Your task to perform on an android device: See recent photos Image 0: 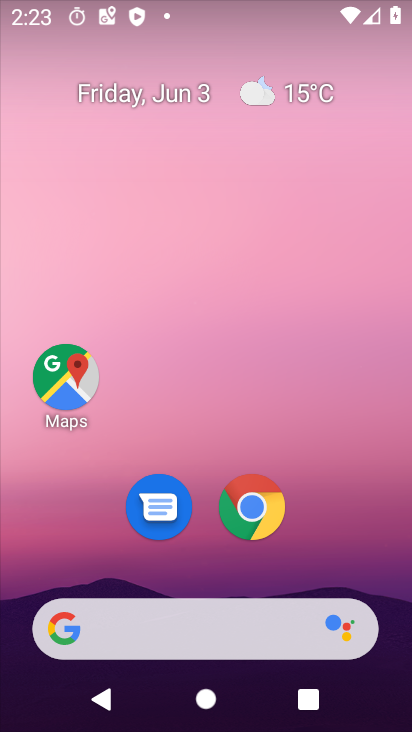
Step 0: drag from (400, 619) to (244, 60)
Your task to perform on an android device: See recent photos Image 1: 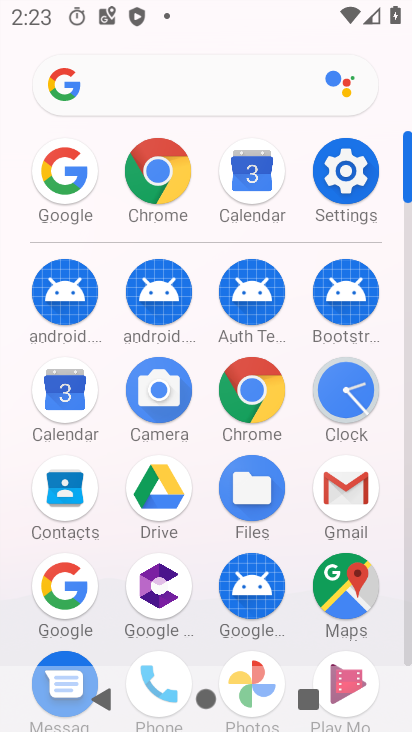
Step 1: click (243, 655)
Your task to perform on an android device: See recent photos Image 2: 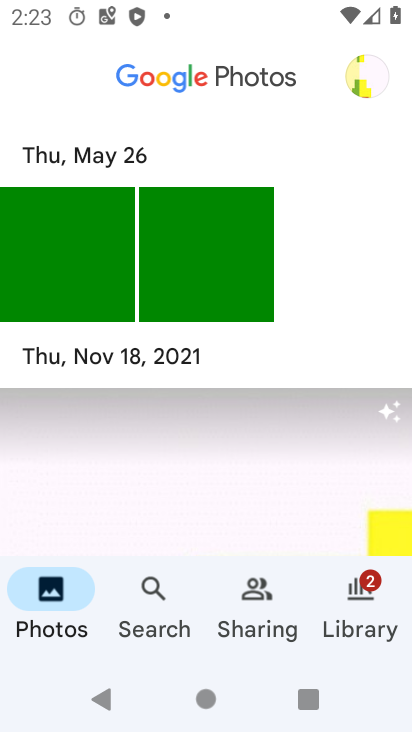
Step 2: click (37, 291)
Your task to perform on an android device: See recent photos Image 3: 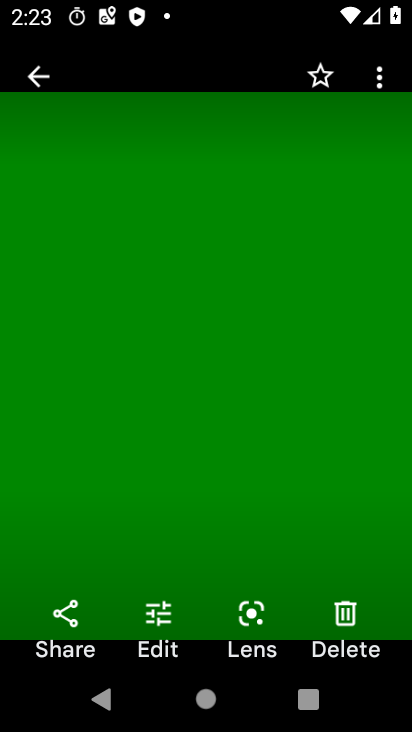
Step 3: task complete